Your task to perform on an android device: open a bookmark in the chrome app Image 0: 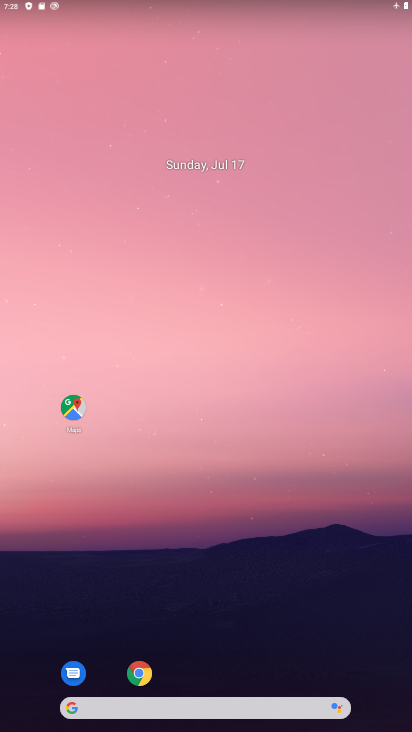
Step 0: drag from (247, 580) to (66, 730)
Your task to perform on an android device: open a bookmark in the chrome app Image 1: 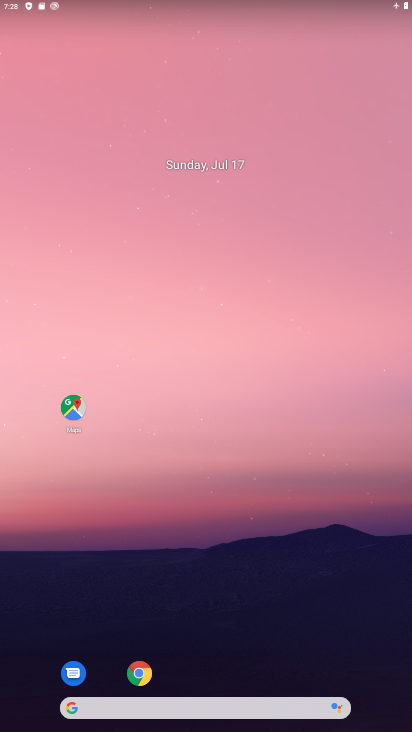
Step 1: drag from (294, 670) to (268, 76)
Your task to perform on an android device: open a bookmark in the chrome app Image 2: 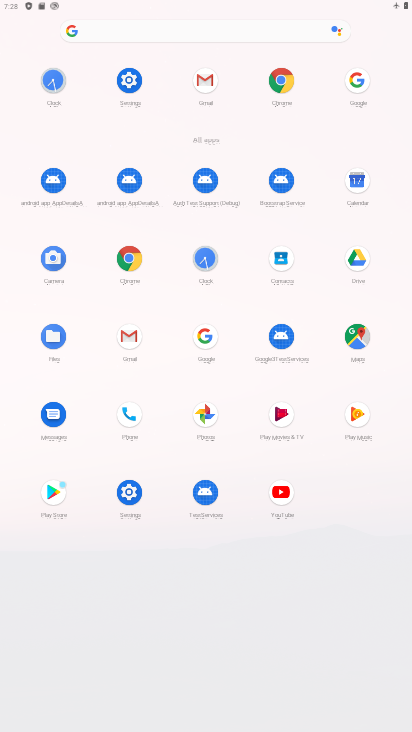
Step 2: click (279, 86)
Your task to perform on an android device: open a bookmark in the chrome app Image 3: 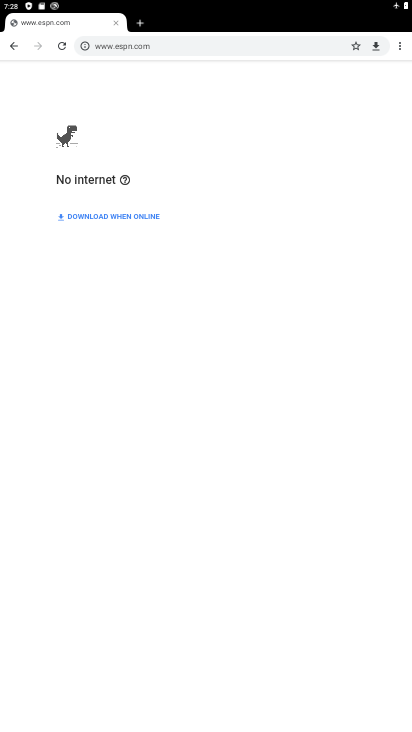
Step 3: task complete